Your task to perform on an android device: open app "Pluto TV - Live TV and Movies" (install if not already installed) and enter user name: "wools@yahoo.com" and password: "misplacing" Image 0: 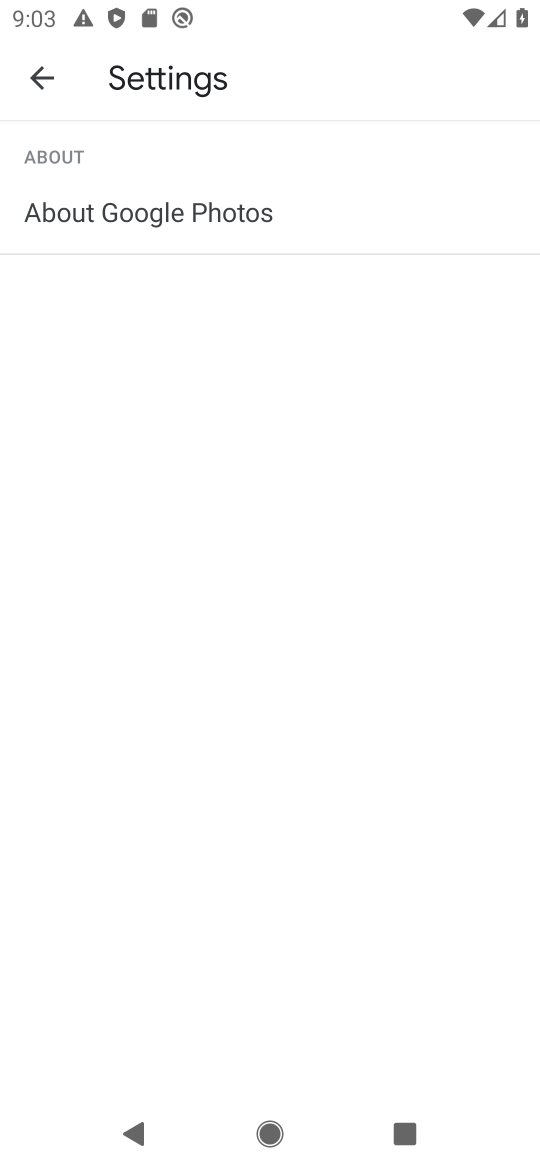
Step 0: press home button
Your task to perform on an android device: open app "Pluto TV - Live TV and Movies" (install if not already installed) and enter user name: "wools@yahoo.com" and password: "misplacing" Image 1: 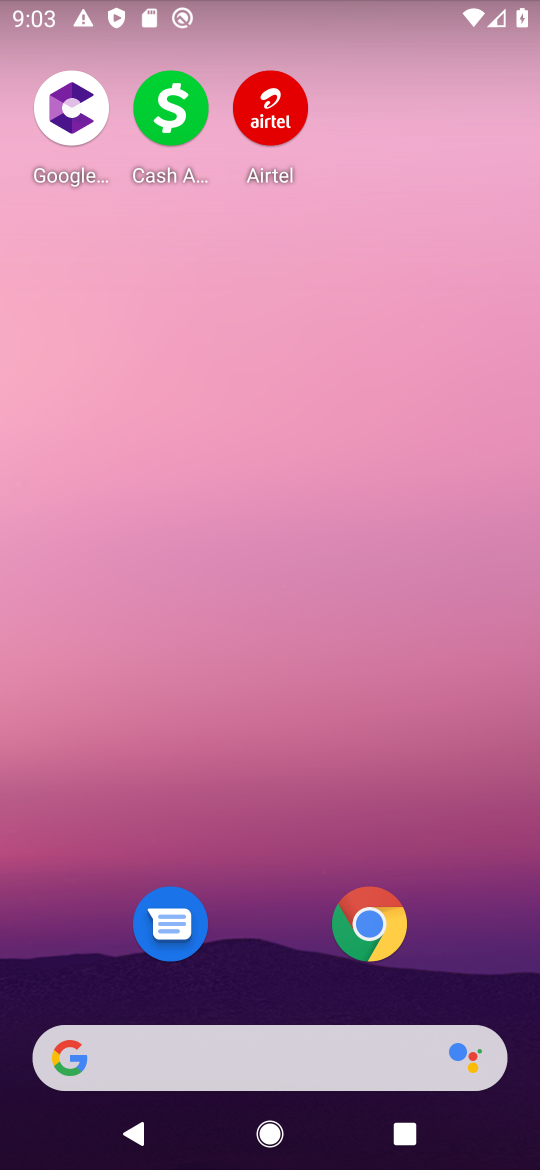
Step 1: drag from (462, 959) to (499, 116)
Your task to perform on an android device: open app "Pluto TV - Live TV and Movies" (install if not already installed) and enter user name: "wools@yahoo.com" and password: "misplacing" Image 2: 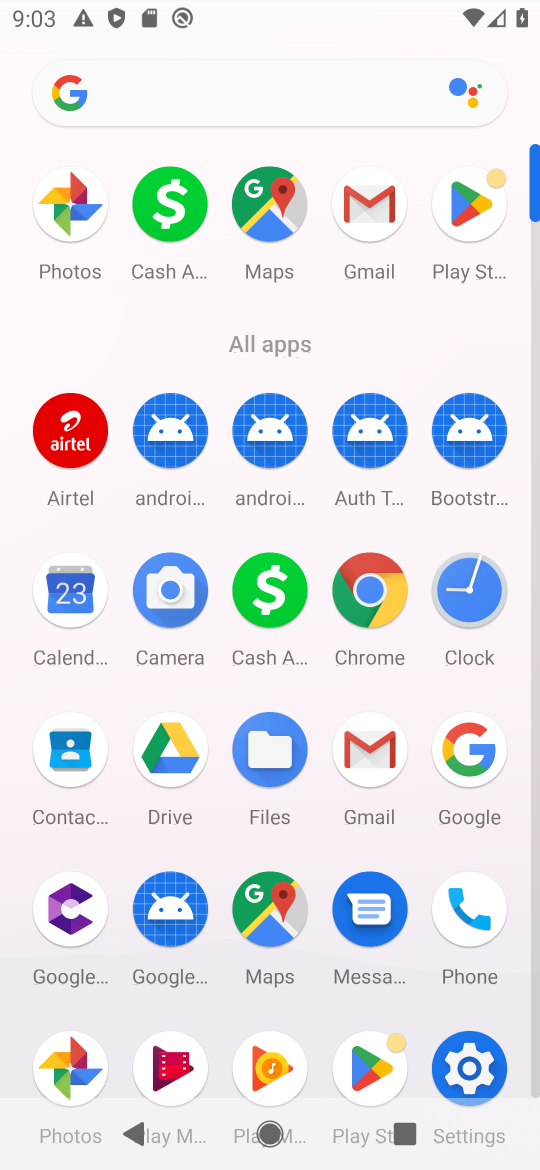
Step 2: click (469, 182)
Your task to perform on an android device: open app "Pluto TV - Live TV and Movies" (install if not already installed) and enter user name: "wools@yahoo.com" and password: "misplacing" Image 3: 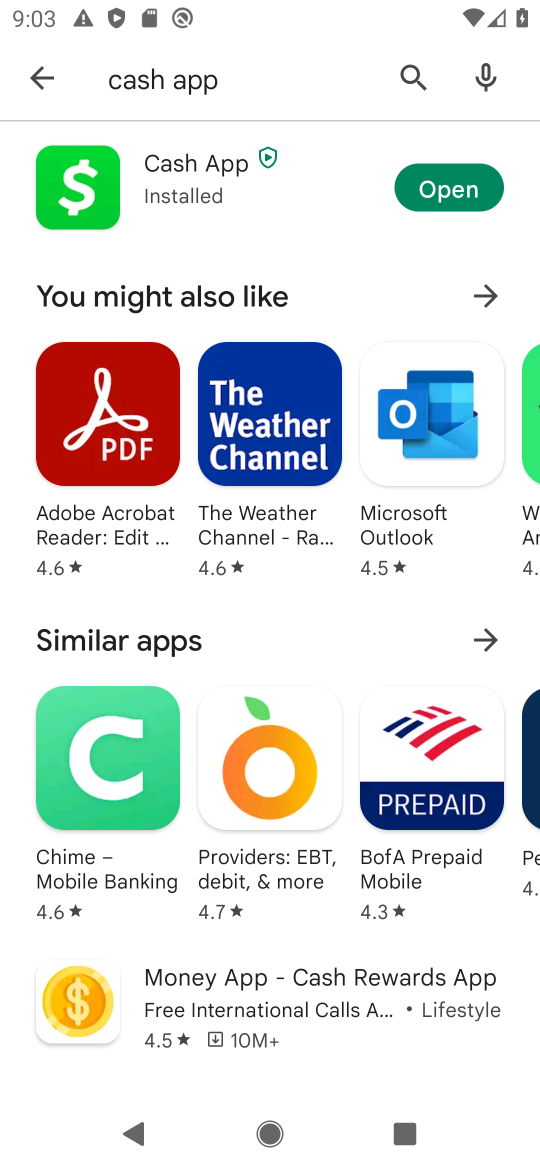
Step 3: press back button
Your task to perform on an android device: open app "Pluto TV - Live TV and Movies" (install if not already installed) and enter user name: "wools@yahoo.com" and password: "misplacing" Image 4: 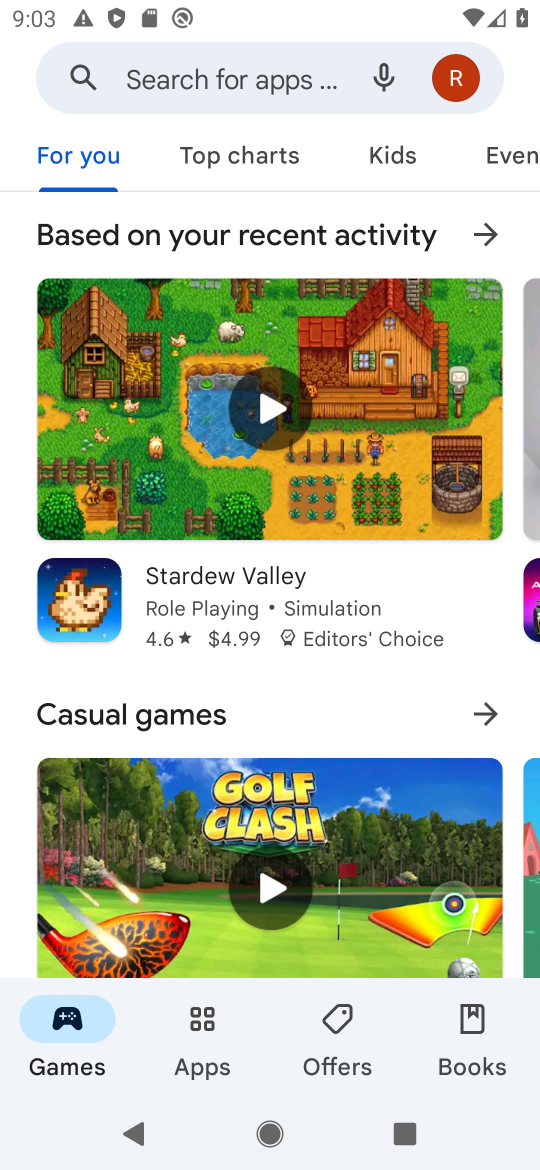
Step 4: click (140, 77)
Your task to perform on an android device: open app "Pluto TV - Live TV and Movies" (install if not already installed) and enter user name: "wools@yahoo.com" and password: "misplacing" Image 5: 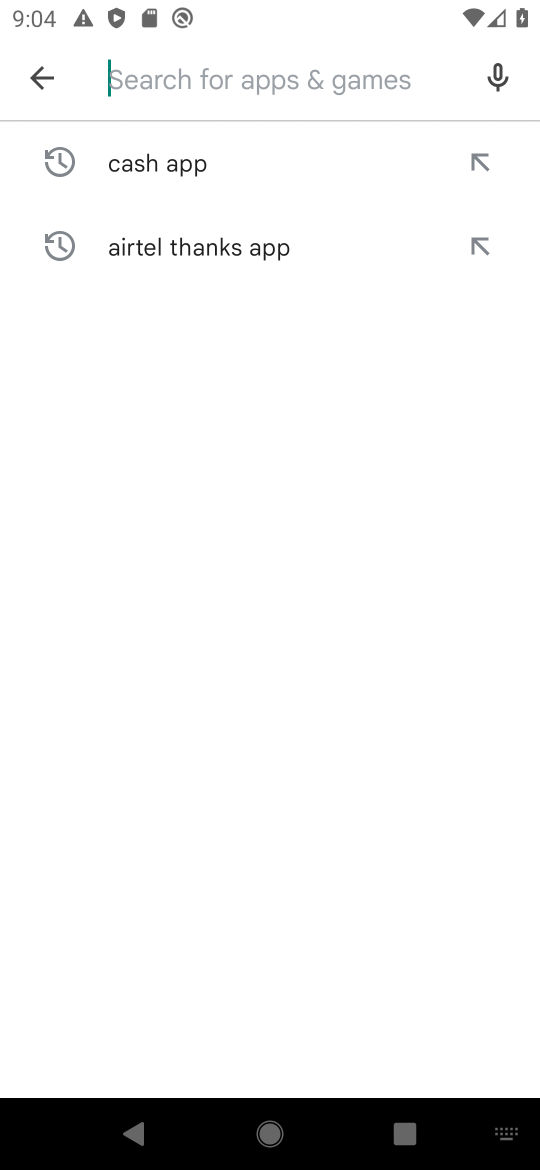
Step 5: press enter
Your task to perform on an android device: open app "Pluto TV - Live TV and Movies" (install if not already installed) and enter user name: "wools@yahoo.com" and password: "misplacing" Image 6: 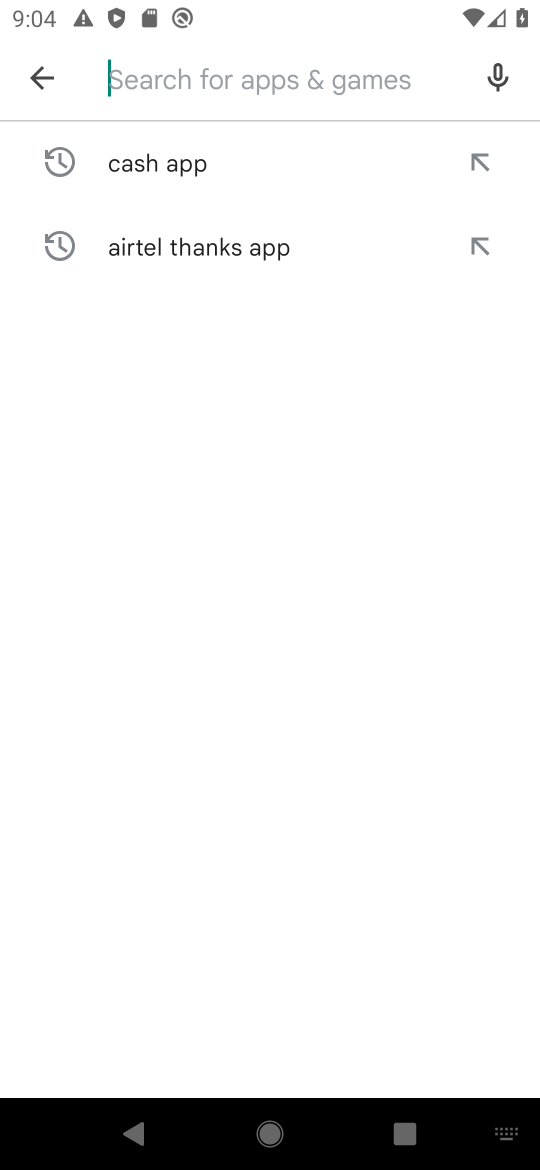
Step 6: type "Pluto TV - Live TV and Movies"
Your task to perform on an android device: open app "Pluto TV - Live TV and Movies" (install if not already installed) and enter user name: "wools@yahoo.com" and password: "misplacing" Image 7: 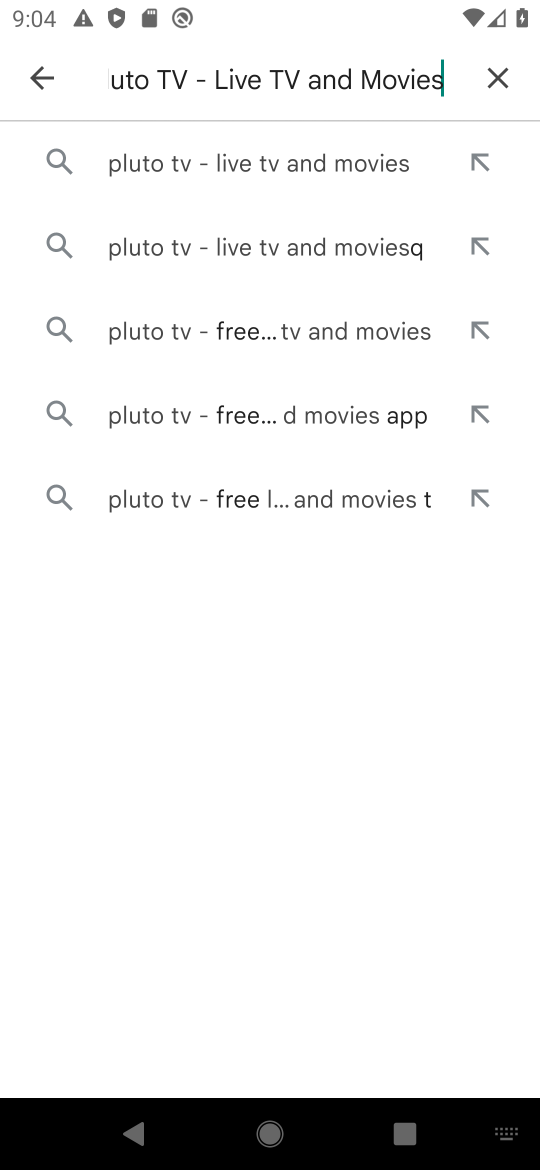
Step 7: click (357, 175)
Your task to perform on an android device: open app "Pluto TV - Live TV and Movies" (install if not already installed) and enter user name: "wools@yahoo.com" and password: "misplacing" Image 8: 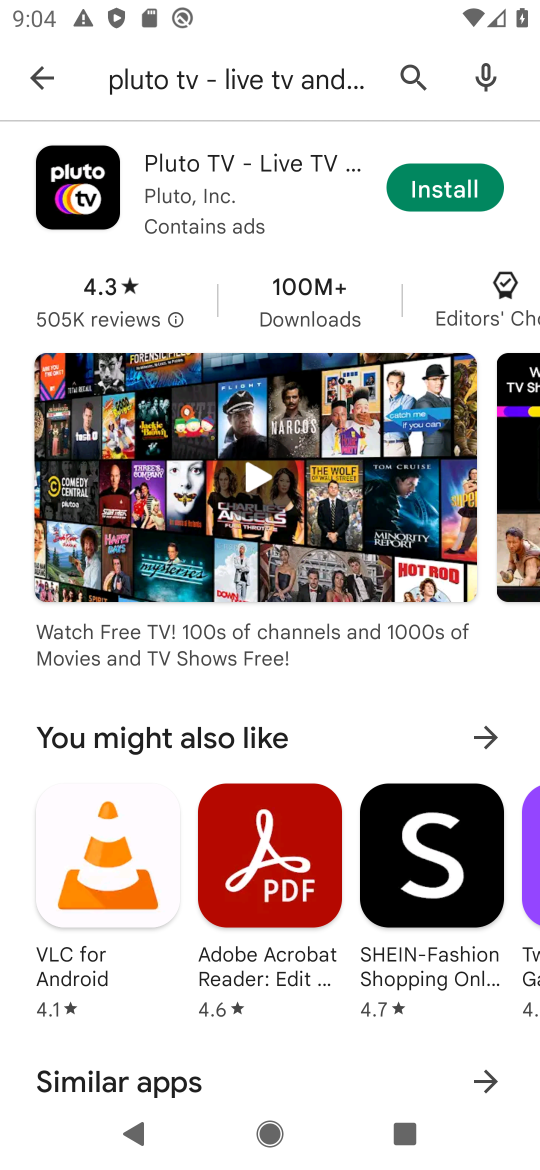
Step 8: click (443, 191)
Your task to perform on an android device: open app "Pluto TV - Live TV and Movies" (install if not already installed) and enter user name: "wools@yahoo.com" and password: "misplacing" Image 9: 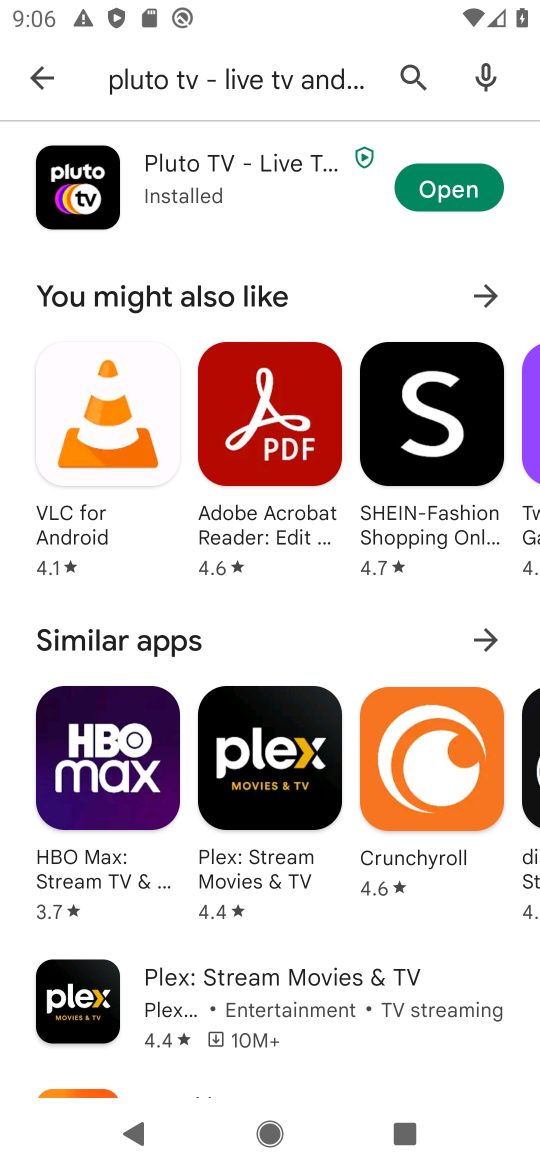
Step 9: click (468, 178)
Your task to perform on an android device: open app "Pluto TV - Live TV and Movies" (install if not already installed) and enter user name: "wools@yahoo.com" and password: "misplacing" Image 10: 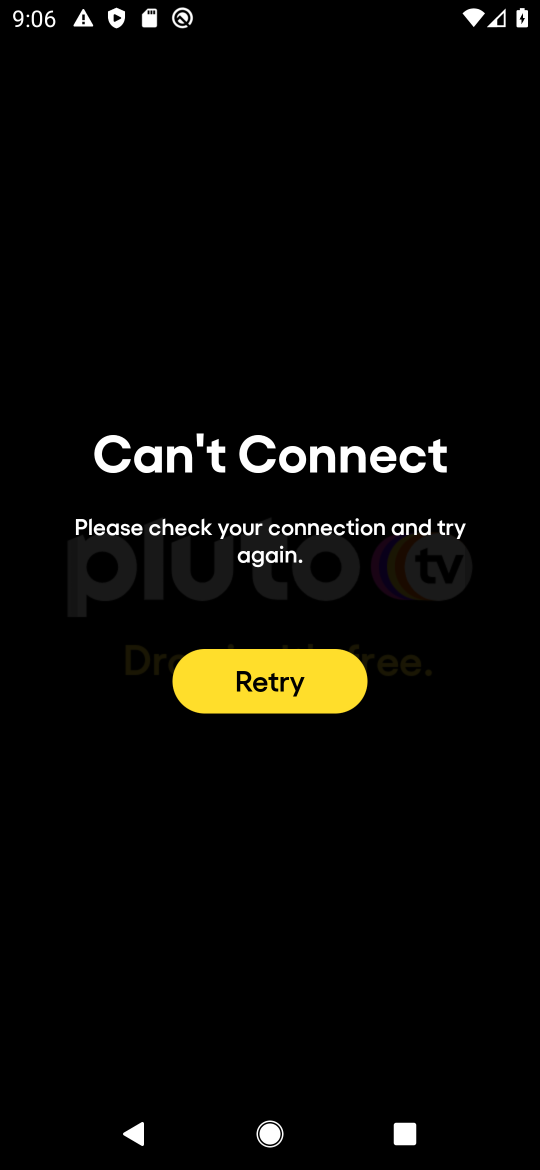
Step 10: task complete